Your task to perform on an android device: Is it going to rain tomorrow? Image 0: 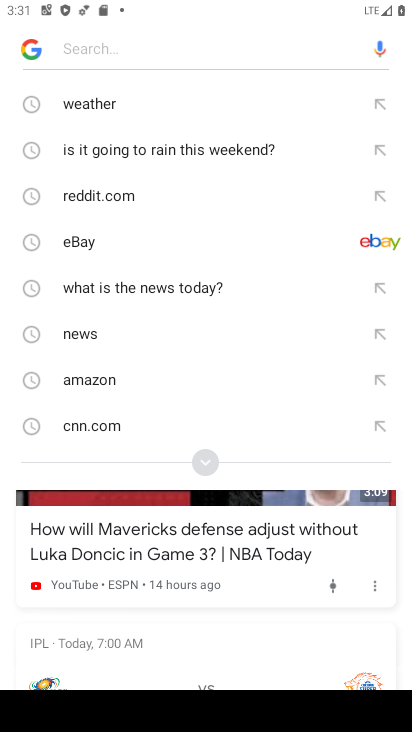
Step 0: press home button
Your task to perform on an android device: Is it going to rain tomorrow? Image 1: 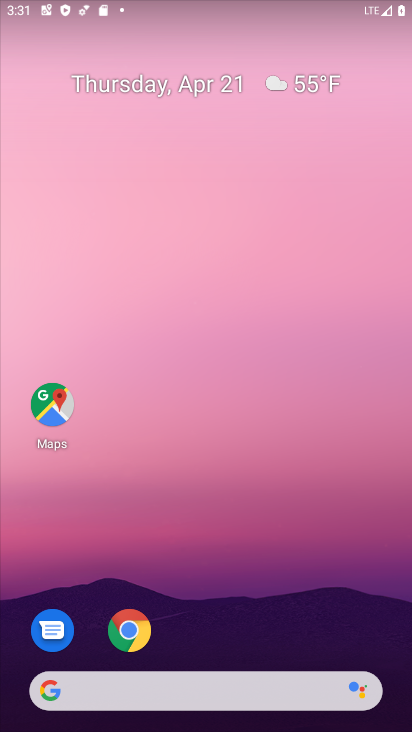
Step 1: click (126, 685)
Your task to perform on an android device: Is it going to rain tomorrow? Image 2: 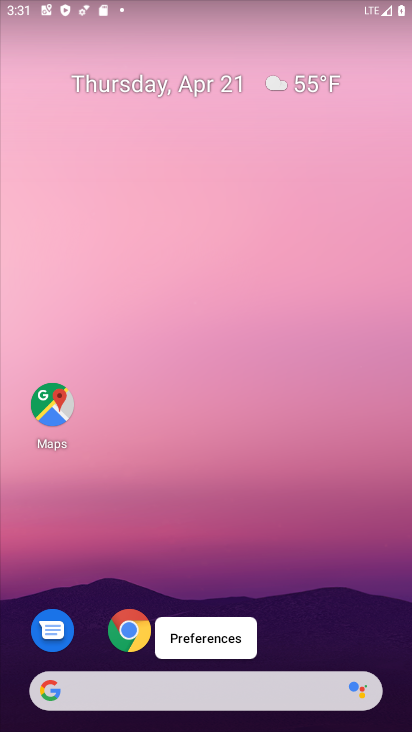
Step 2: click (273, 87)
Your task to perform on an android device: Is it going to rain tomorrow? Image 3: 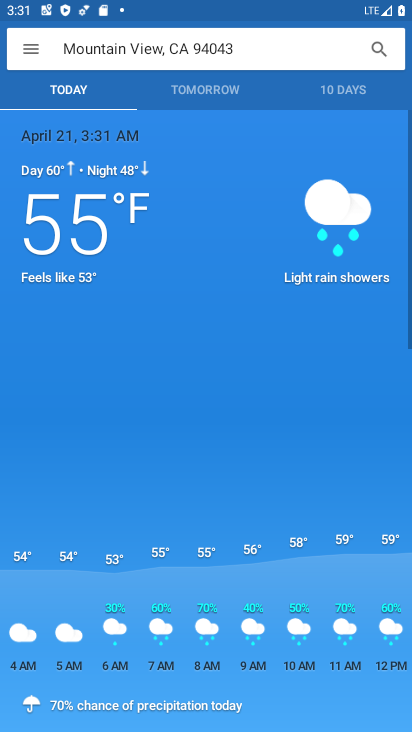
Step 3: click (182, 90)
Your task to perform on an android device: Is it going to rain tomorrow? Image 4: 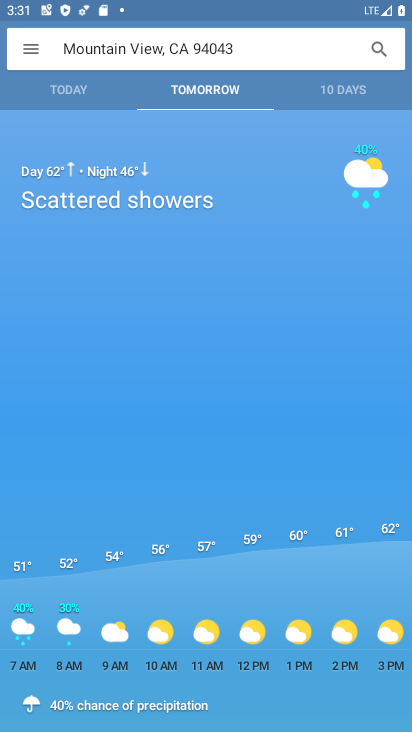
Step 4: task complete